Your task to perform on an android device: Search for seafood restaurants on Google Maps Image 0: 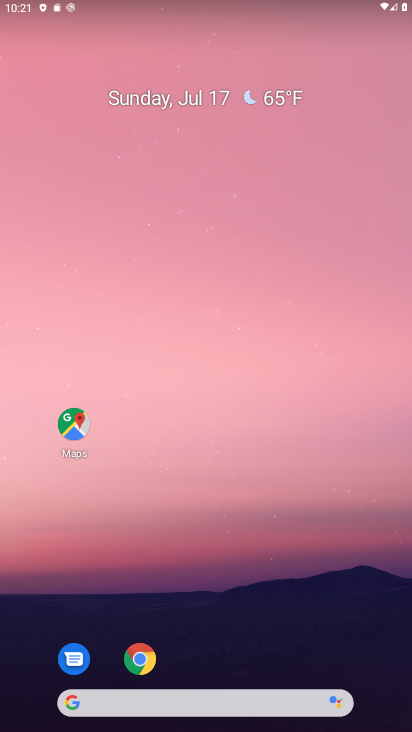
Step 0: click (66, 431)
Your task to perform on an android device: Search for seafood restaurants on Google Maps Image 1: 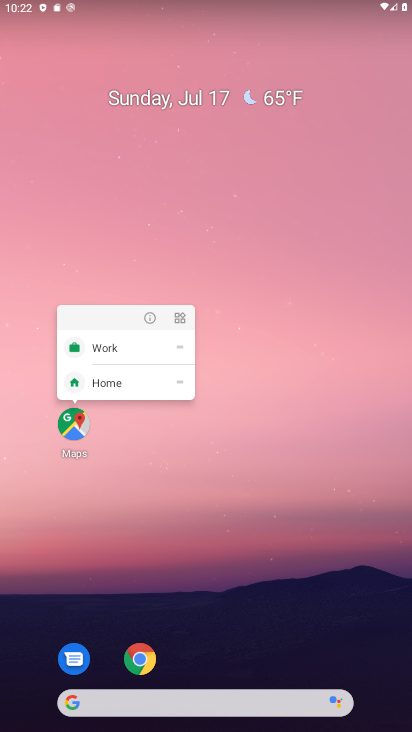
Step 1: click (66, 431)
Your task to perform on an android device: Search for seafood restaurants on Google Maps Image 2: 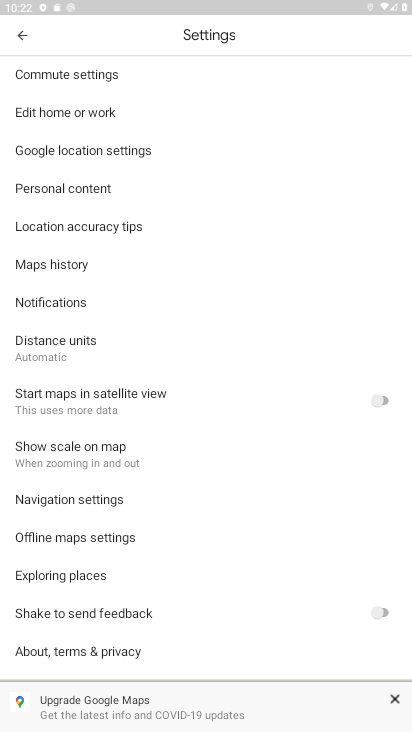
Step 2: click (21, 40)
Your task to perform on an android device: Search for seafood restaurants on Google Maps Image 3: 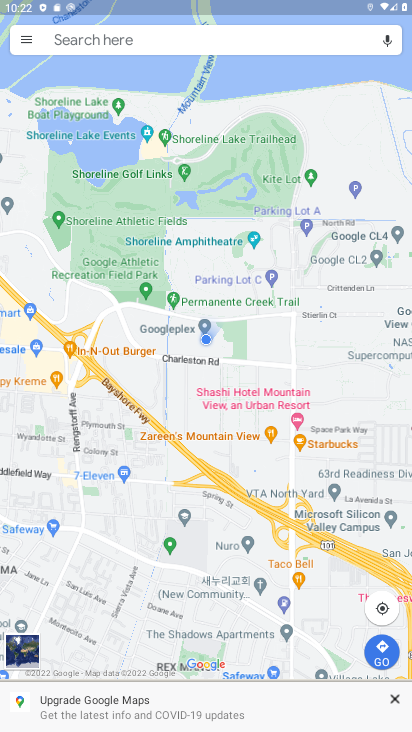
Step 3: click (121, 40)
Your task to perform on an android device: Search for seafood restaurants on Google Maps Image 4: 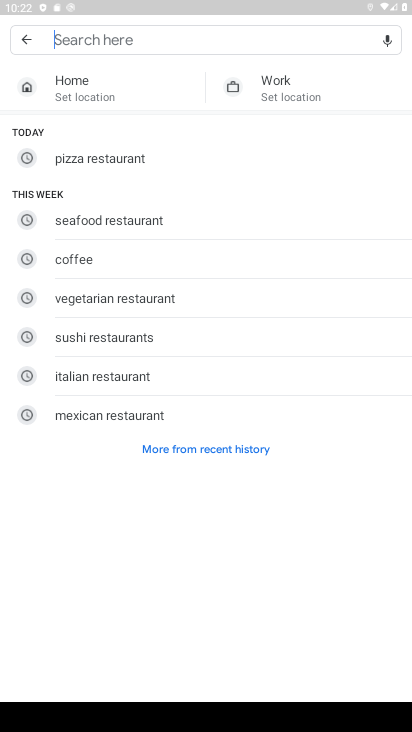
Step 4: click (120, 218)
Your task to perform on an android device: Search for seafood restaurants on Google Maps Image 5: 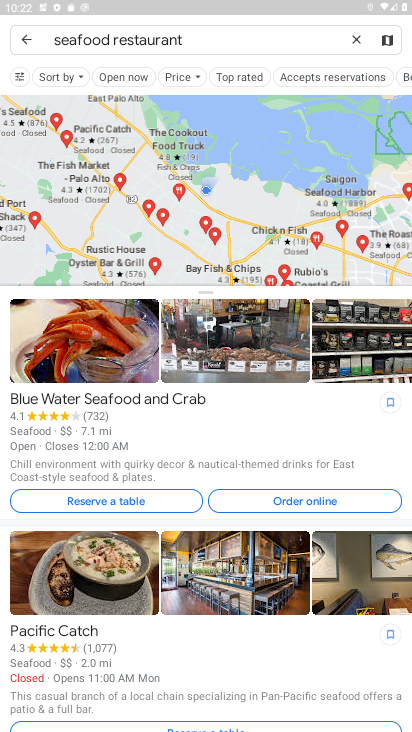
Step 5: task complete